Your task to perform on an android device: turn off picture-in-picture Image 0: 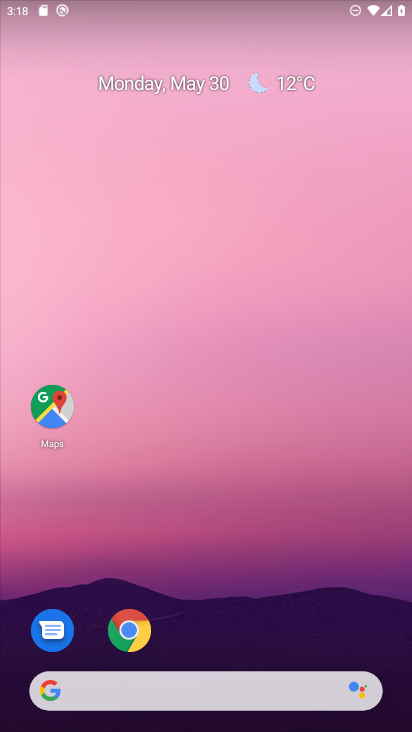
Step 0: click (130, 631)
Your task to perform on an android device: turn off picture-in-picture Image 1: 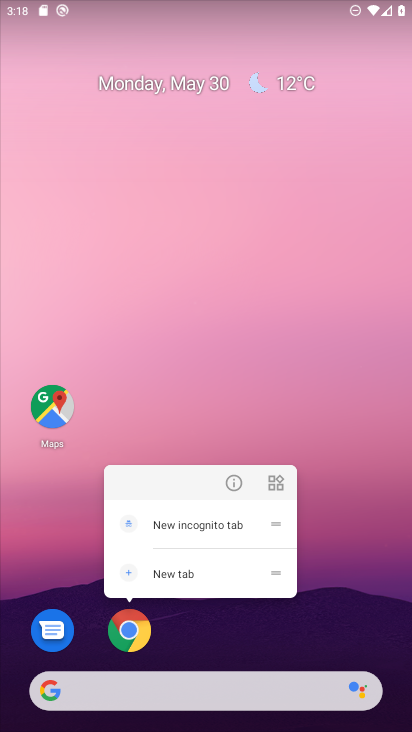
Step 1: click (233, 485)
Your task to perform on an android device: turn off picture-in-picture Image 2: 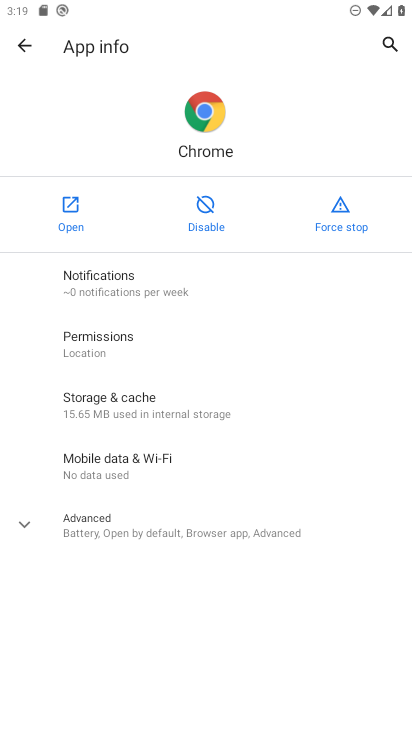
Step 2: click (152, 540)
Your task to perform on an android device: turn off picture-in-picture Image 3: 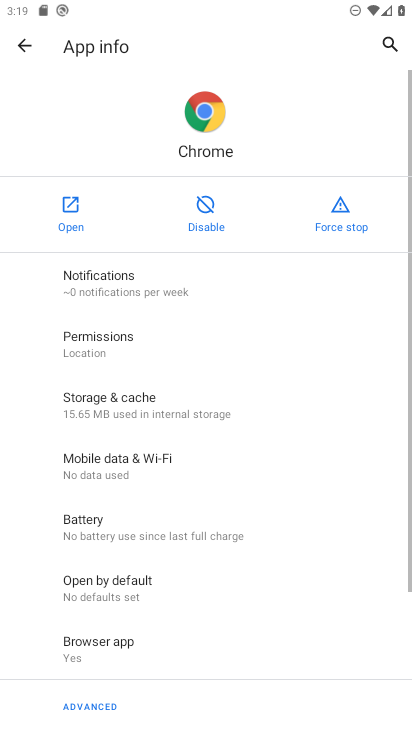
Step 3: drag from (233, 616) to (217, 114)
Your task to perform on an android device: turn off picture-in-picture Image 4: 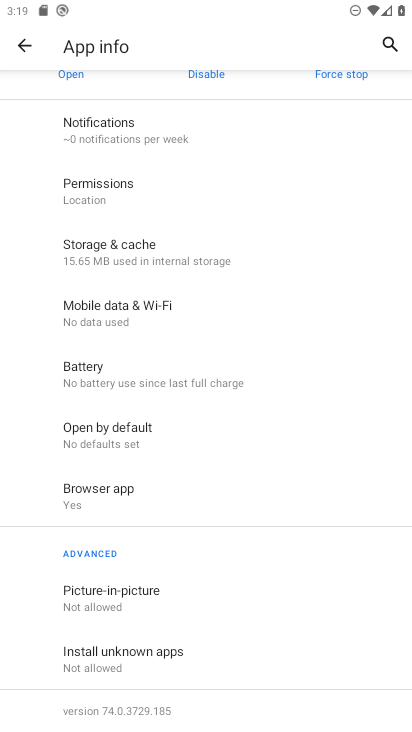
Step 4: click (127, 605)
Your task to perform on an android device: turn off picture-in-picture Image 5: 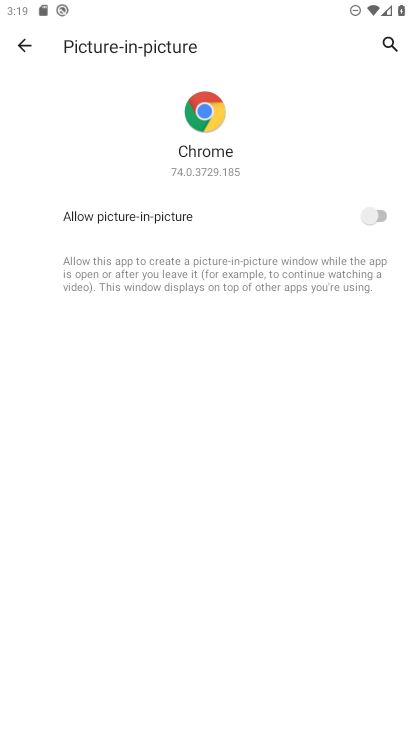
Step 5: task complete